Your task to perform on an android device: Turn off the flashlight Image 0: 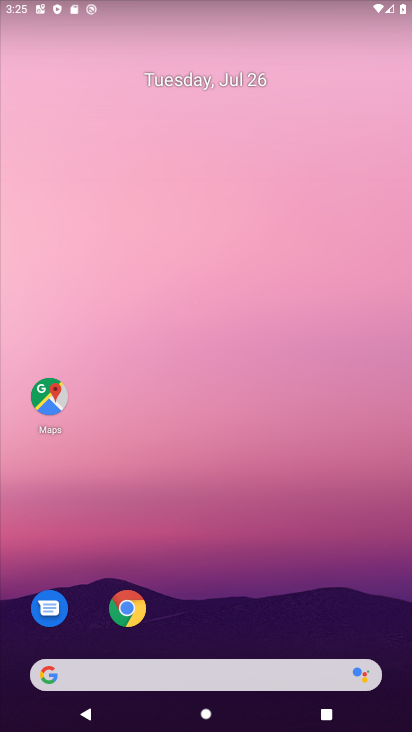
Step 0: task impossible